Your task to perform on an android device: What is the news today? Image 0: 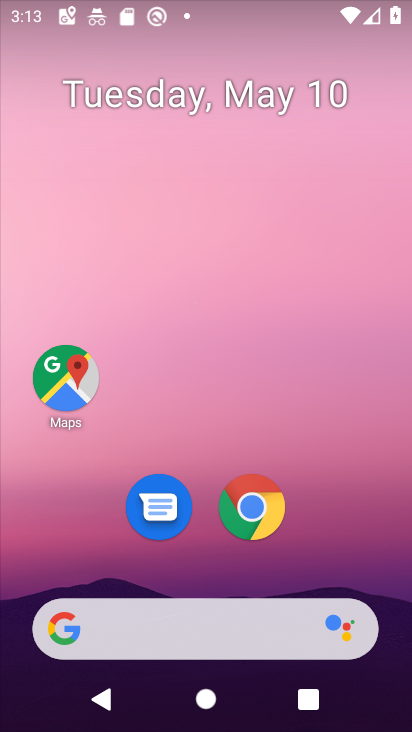
Step 0: click (255, 500)
Your task to perform on an android device: What is the news today? Image 1: 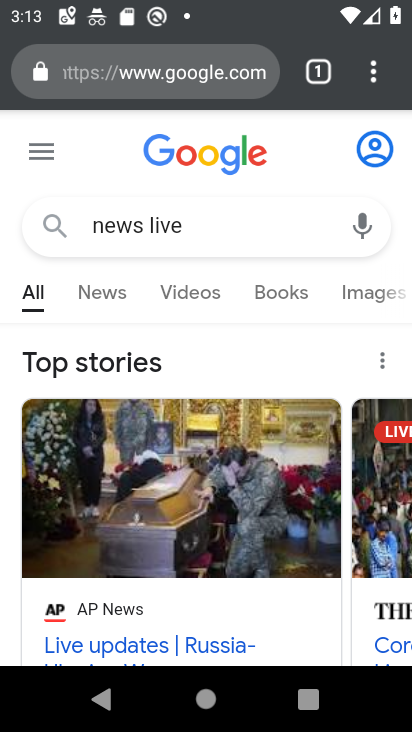
Step 1: click (122, 70)
Your task to perform on an android device: What is the news today? Image 2: 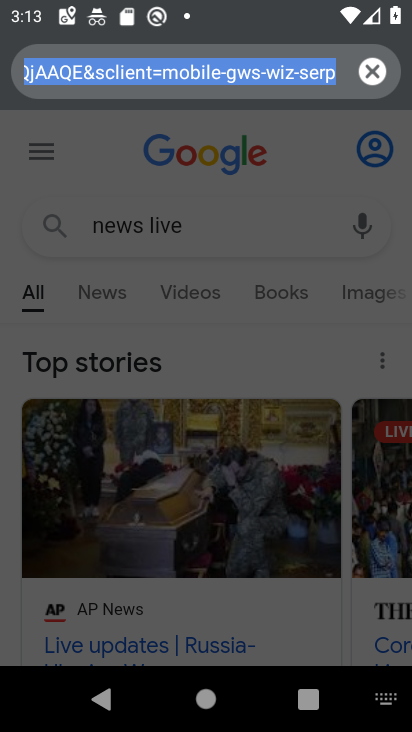
Step 2: type "news"
Your task to perform on an android device: What is the news today? Image 3: 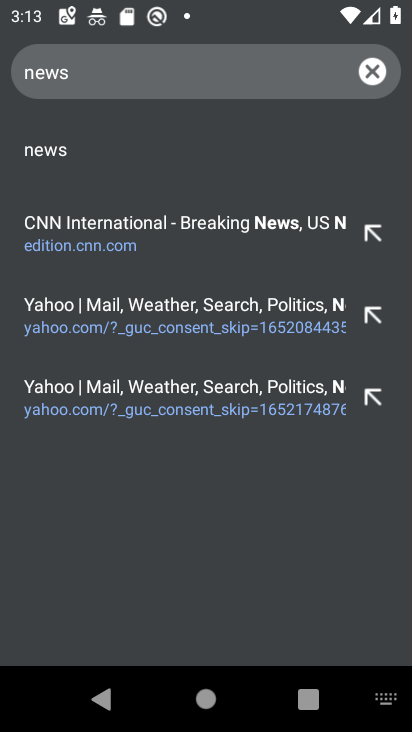
Step 3: click (60, 149)
Your task to perform on an android device: What is the news today? Image 4: 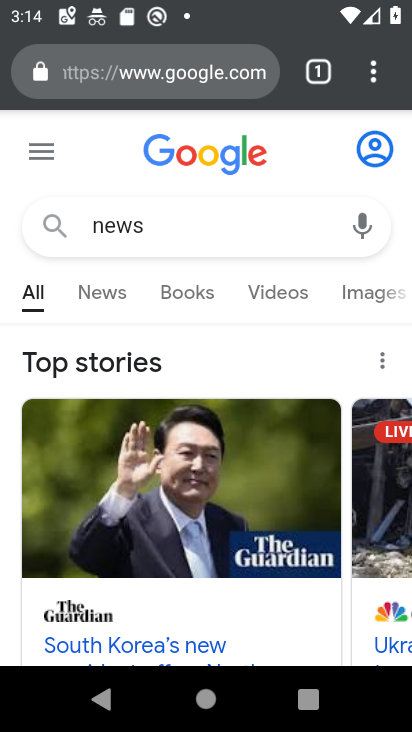
Step 4: task complete